Your task to perform on an android device: clear all cookies in the chrome app Image 0: 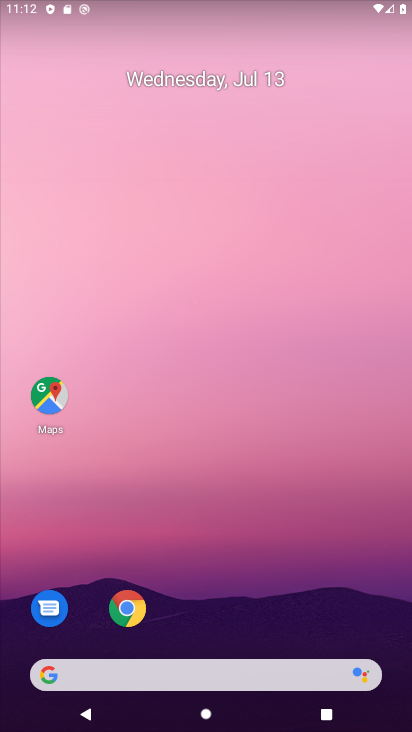
Step 0: click (130, 609)
Your task to perform on an android device: clear all cookies in the chrome app Image 1: 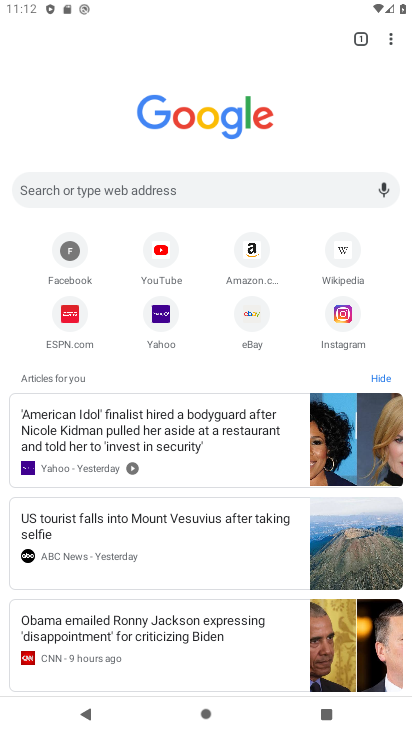
Step 1: click (391, 36)
Your task to perform on an android device: clear all cookies in the chrome app Image 2: 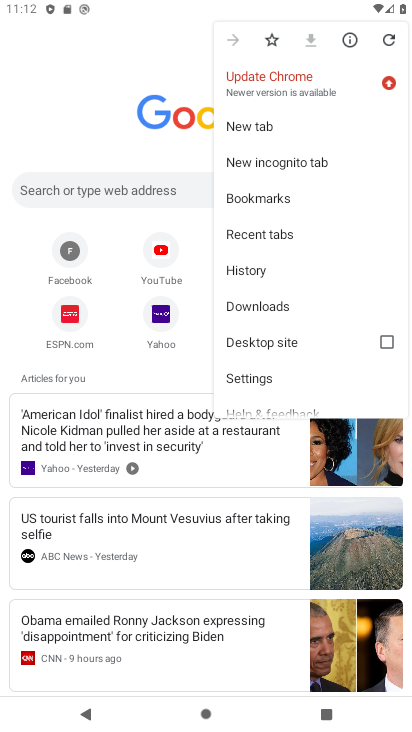
Step 2: click (251, 271)
Your task to perform on an android device: clear all cookies in the chrome app Image 3: 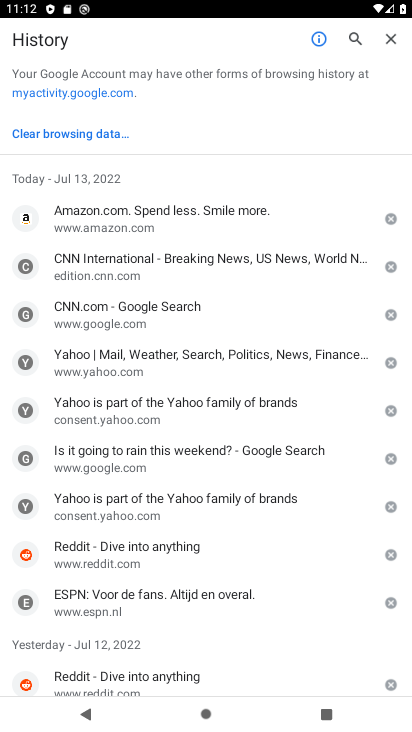
Step 3: click (76, 135)
Your task to perform on an android device: clear all cookies in the chrome app Image 4: 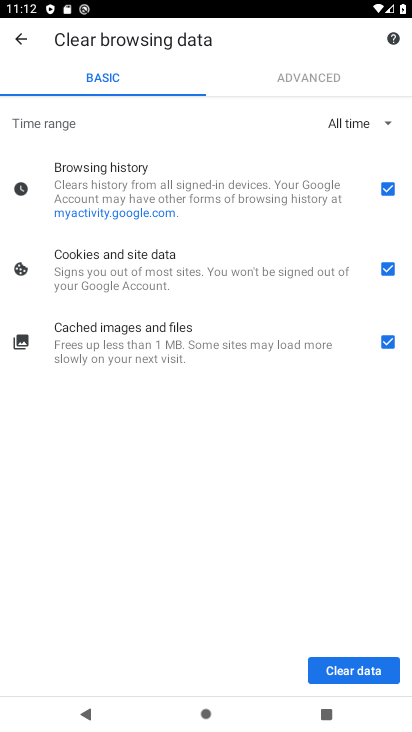
Step 4: click (384, 192)
Your task to perform on an android device: clear all cookies in the chrome app Image 5: 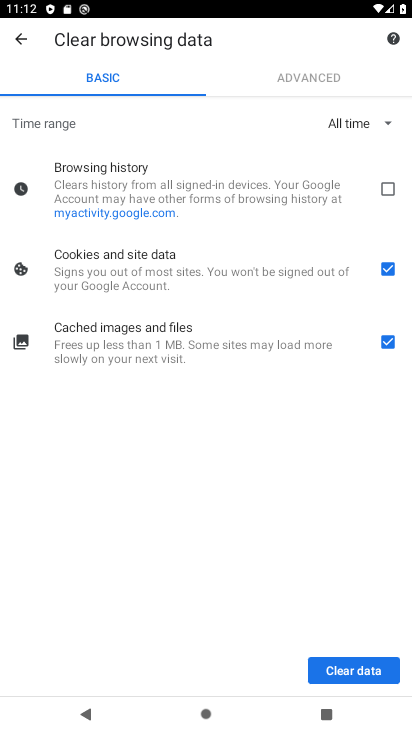
Step 5: click (371, 343)
Your task to perform on an android device: clear all cookies in the chrome app Image 6: 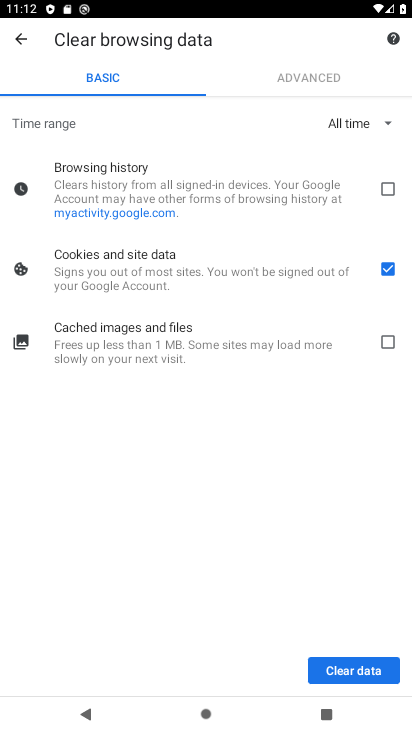
Step 6: click (326, 663)
Your task to perform on an android device: clear all cookies in the chrome app Image 7: 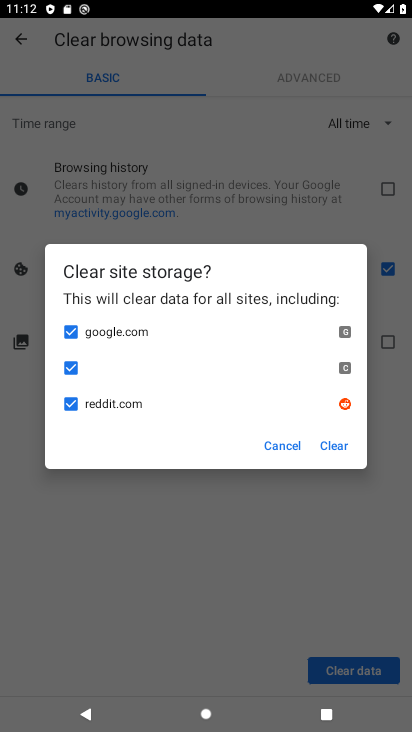
Step 7: click (338, 449)
Your task to perform on an android device: clear all cookies in the chrome app Image 8: 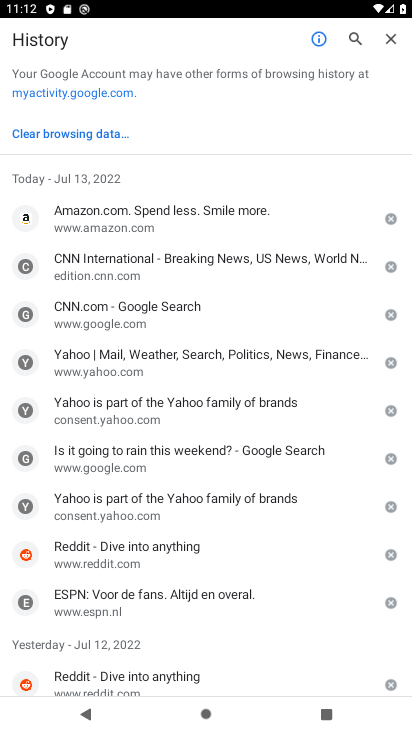
Step 8: task complete